Your task to perform on an android device: change the upload size in google photos Image 0: 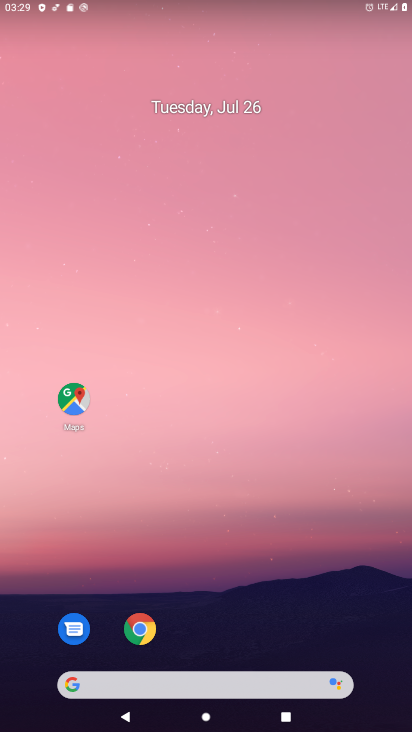
Step 0: drag from (279, 607) to (299, 121)
Your task to perform on an android device: change the upload size in google photos Image 1: 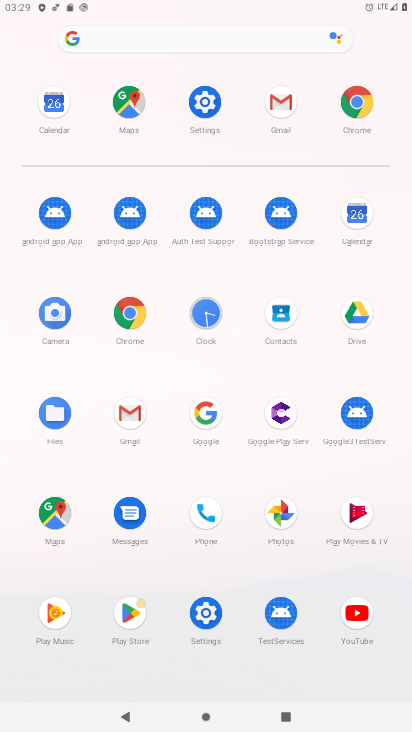
Step 1: click (284, 511)
Your task to perform on an android device: change the upload size in google photos Image 2: 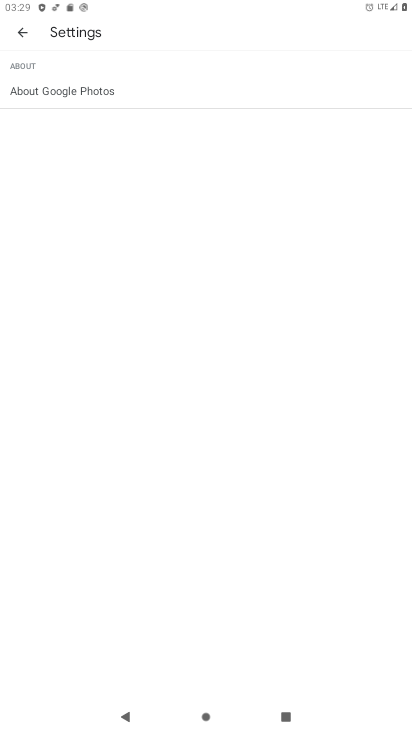
Step 2: click (18, 33)
Your task to perform on an android device: change the upload size in google photos Image 3: 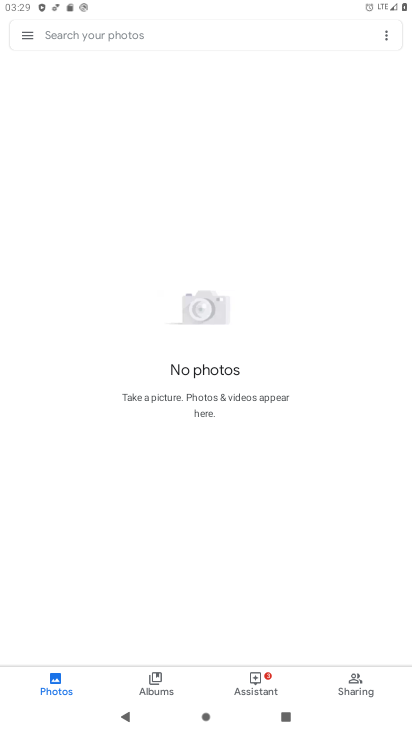
Step 3: click (29, 30)
Your task to perform on an android device: change the upload size in google photos Image 4: 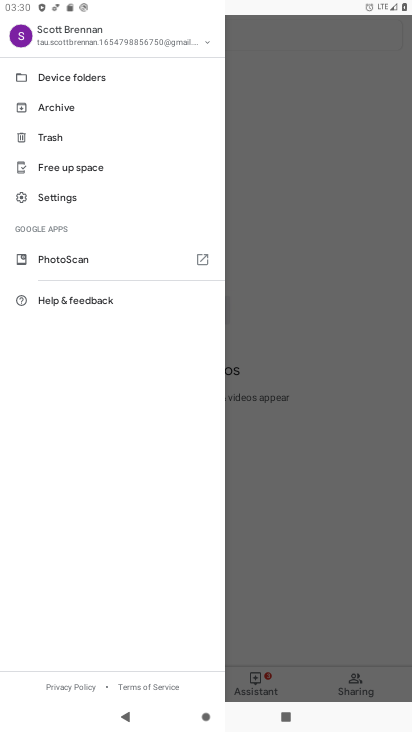
Step 4: click (65, 38)
Your task to perform on an android device: change the upload size in google photos Image 5: 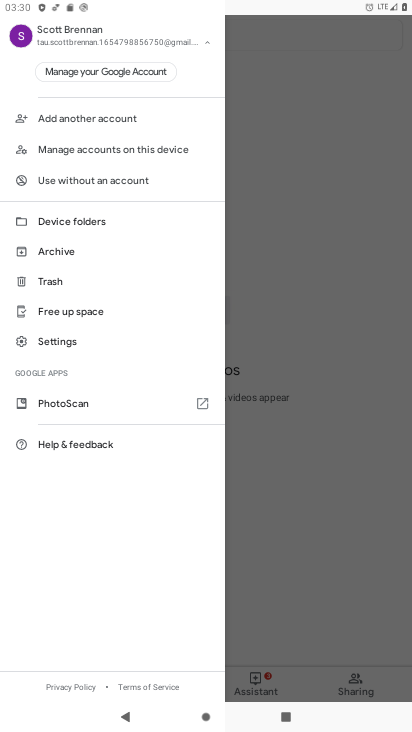
Step 5: click (46, 339)
Your task to perform on an android device: change the upload size in google photos Image 6: 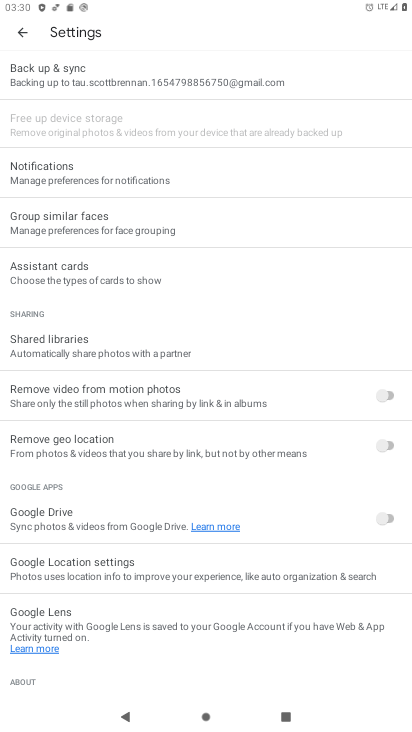
Step 6: click (91, 78)
Your task to perform on an android device: change the upload size in google photos Image 7: 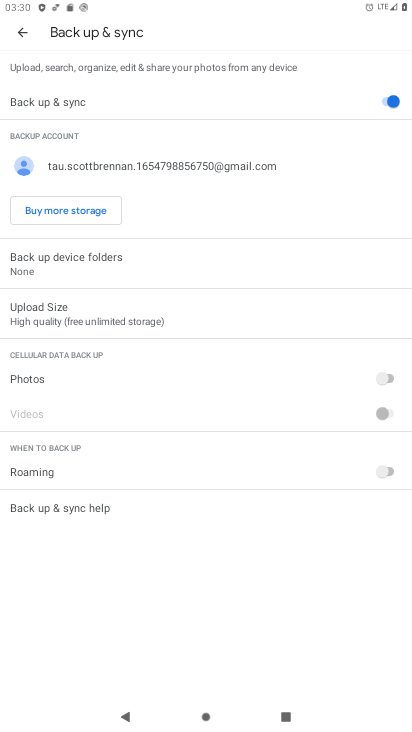
Step 7: click (54, 307)
Your task to perform on an android device: change the upload size in google photos Image 8: 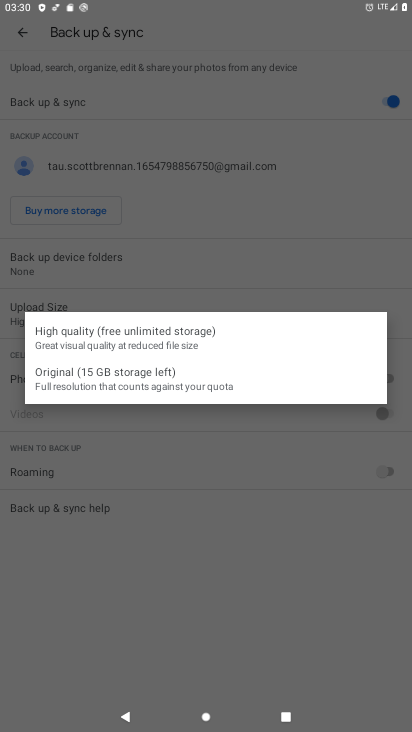
Step 8: click (105, 375)
Your task to perform on an android device: change the upload size in google photos Image 9: 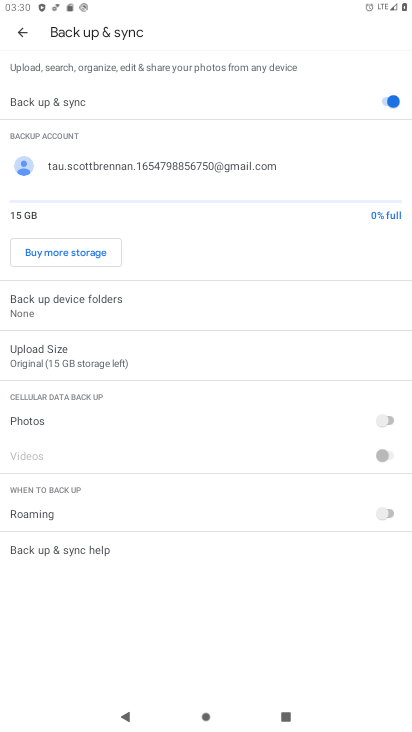
Step 9: task complete